Your task to perform on an android device: Open ESPN.com Image 0: 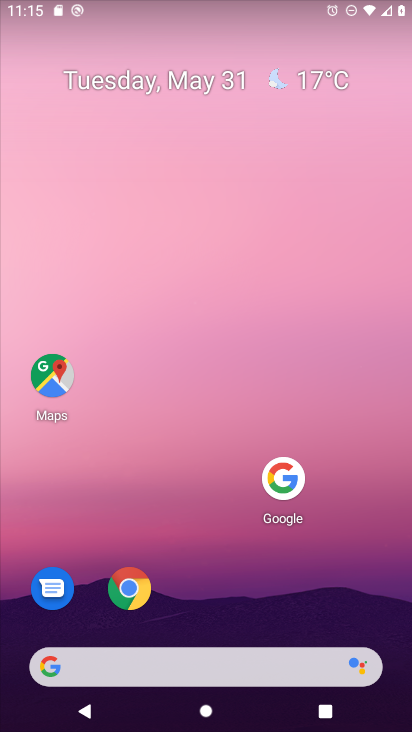
Step 0: click (131, 595)
Your task to perform on an android device: Open ESPN.com Image 1: 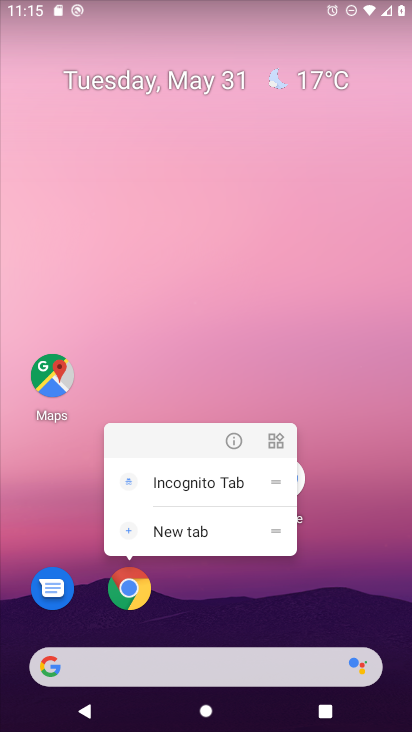
Step 1: click (129, 583)
Your task to perform on an android device: Open ESPN.com Image 2: 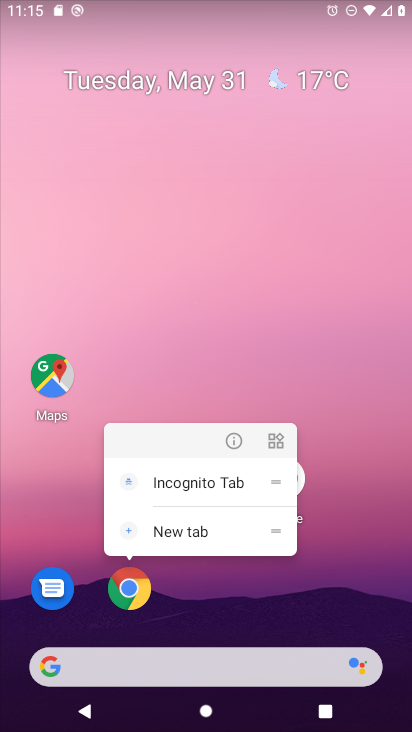
Step 2: click (125, 586)
Your task to perform on an android device: Open ESPN.com Image 3: 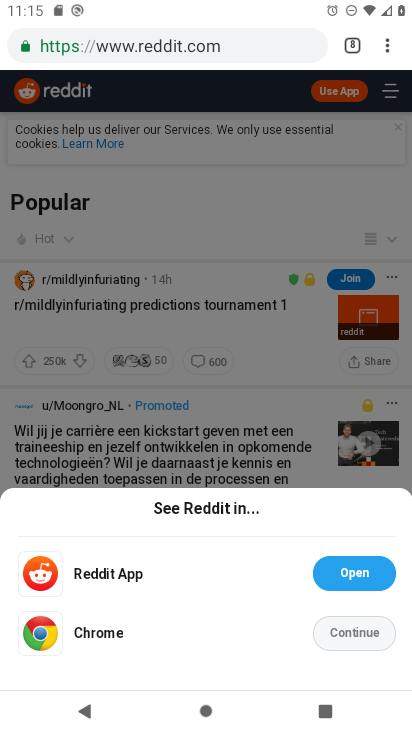
Step 3: drag from (391, 46) to (295, 84)
Your task to perform on an android device: Open ESPN.com Image 4: 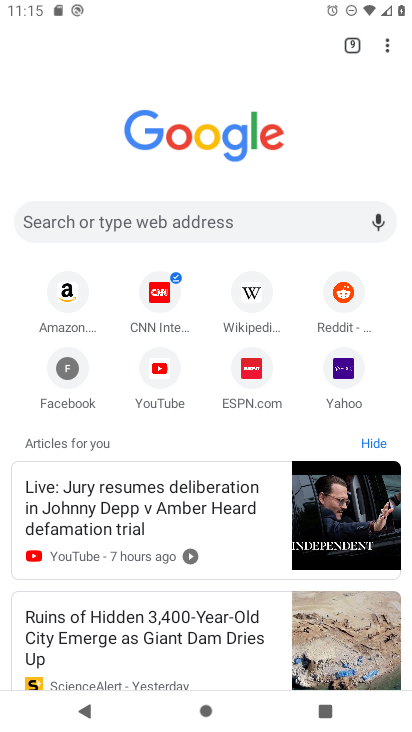
Step 4: click (248, 371)
Your task to perform on an android device: Open ESPN.com Image 5: 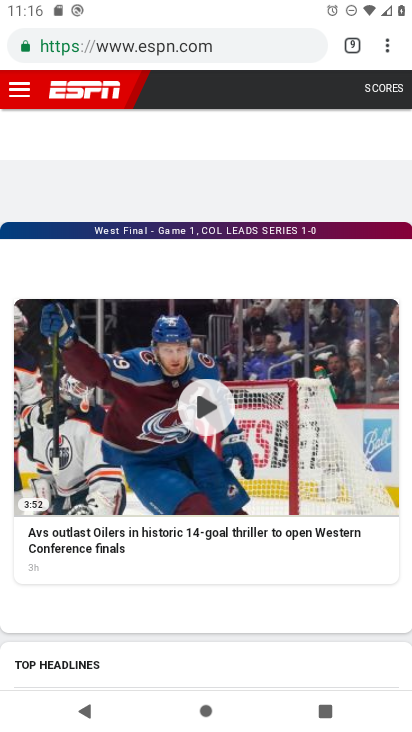
Step 5: task complete